Your task to perform on an android device: Turn on the flashlight Image 0: 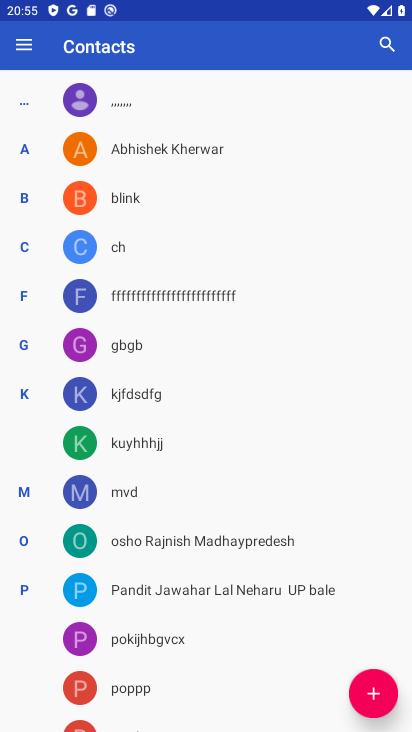
Step 0: press home button
Your task to perform on an android device: Turn on the flashlight Image 1: 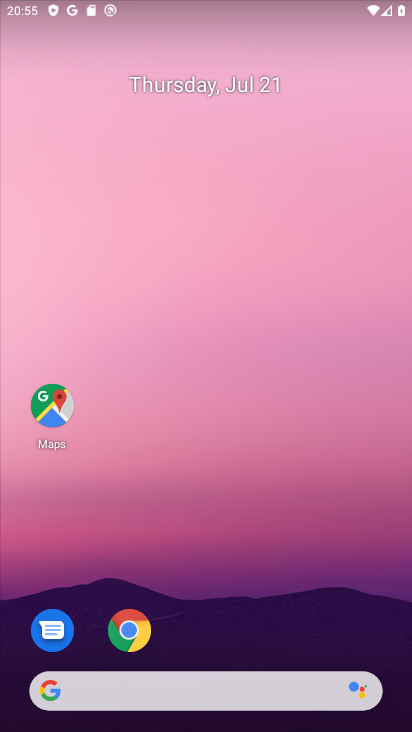
Step 1: drag from (289, 613) to (251, 154)
Your task to perform on an android device: Turn on the flashlight Image 2: 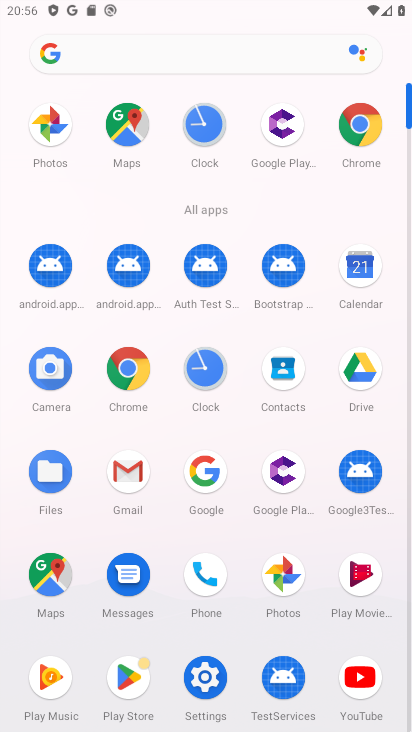
Step 2: click (210, 666)
Your task to perform on an android device: Turn on the flashlight Image 3: 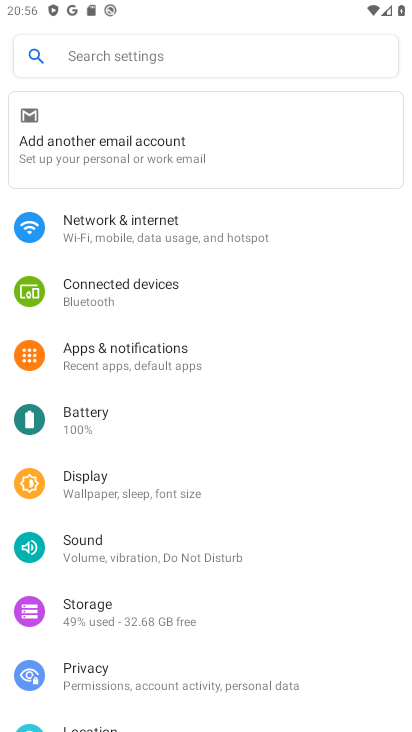
Step 3: click (126, 500)
Your task to perform on an android device: Turn on the flashlight Image 4: 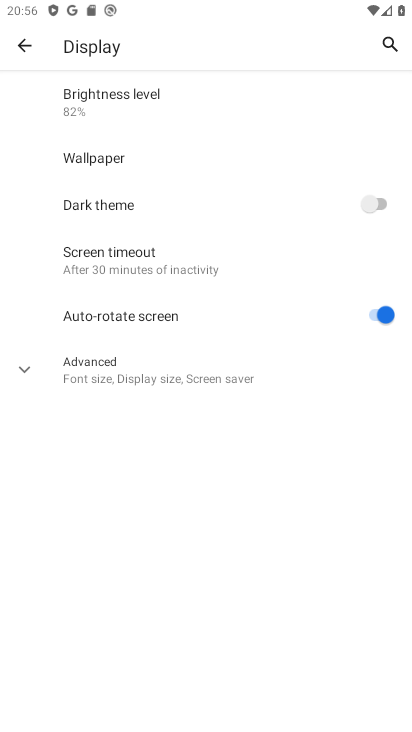
Step 4: click (85, 241)
Your task to perform on an android device: Turn on the flashlight Image 5: 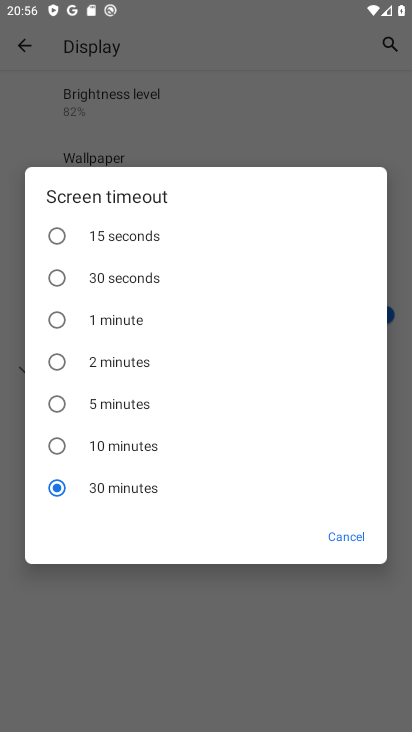
Step 5: task complete